Your task to perform on an android device: turn off improve location accuracy Image 0: 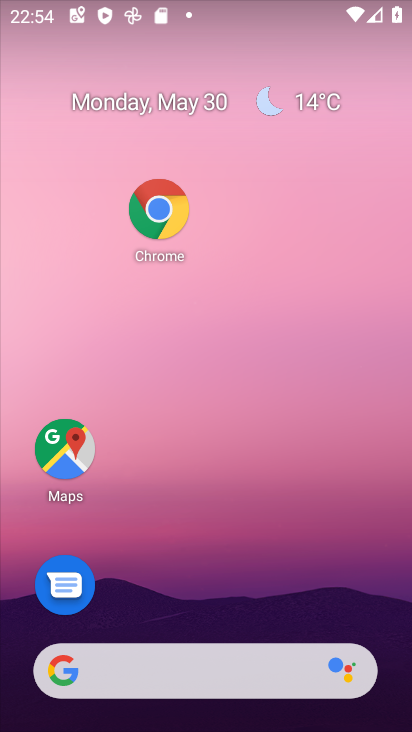
Step 0: drag from (214, 558) to (176, 0)
Your task to perform on an android device: turn off improve location accuracy Image 1: 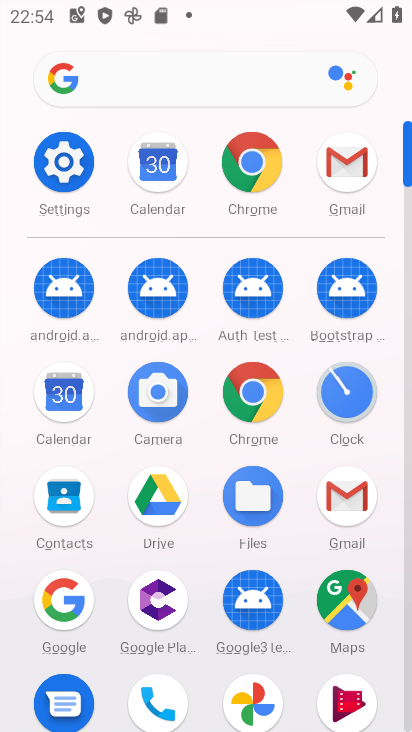
Step 1: click (72, 170)
Your task to perform on an android device: turn off improve location accuracy Image 2: 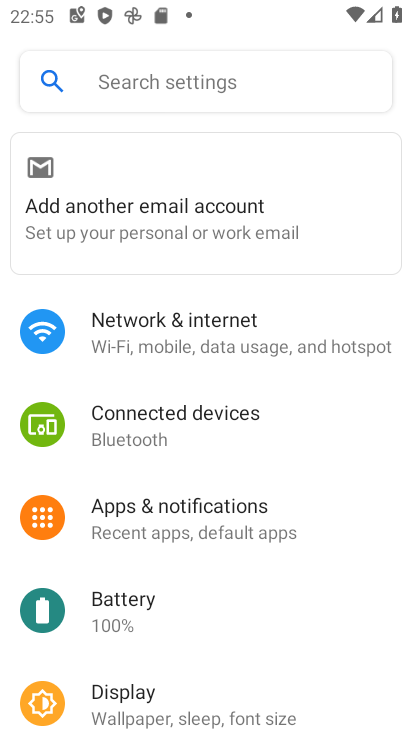
Step 2: drag from (208, 603) to (254, 193)
Your task to perform on an android device: turn off improve location accuracy Image 3: 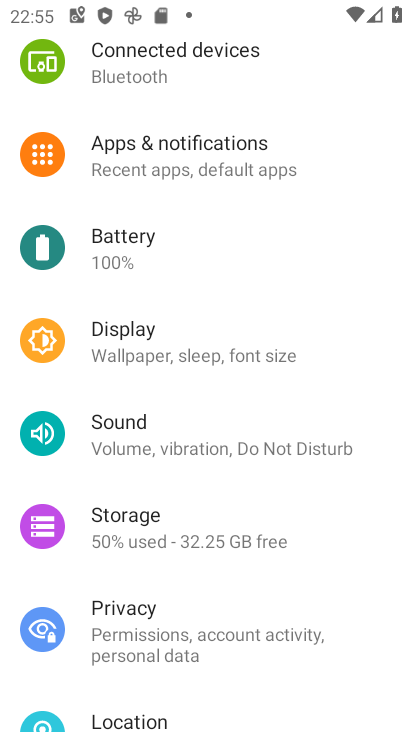
Step 3: drag from (150, 617) to (230, 292)
Your task to perform on an android device: turn off improve location accuracy Image 4: 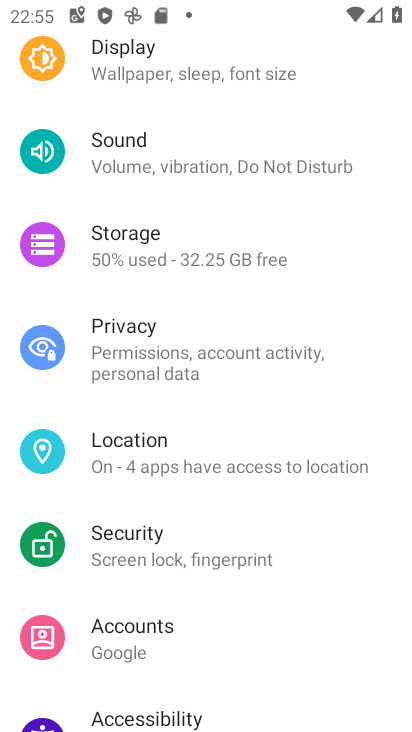
Step 4: drag from (213, 682) to (256, 197)
Your task to perform on an android device: turn off improve location accuracy Image 5: 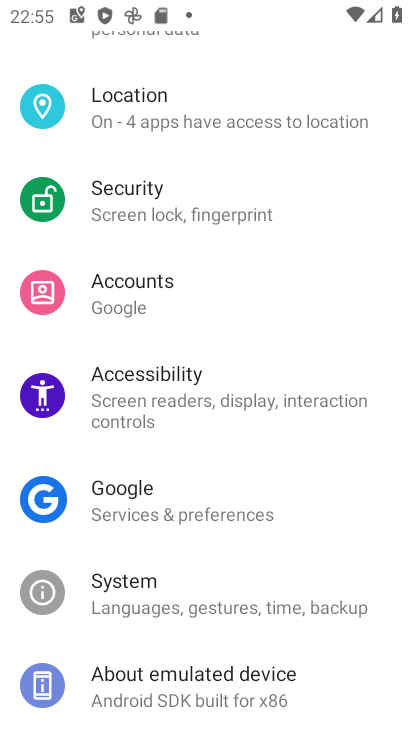
Step 5: click (225, 132)
Your task to perform on an android device: turn off improve location accuracy Image 6: 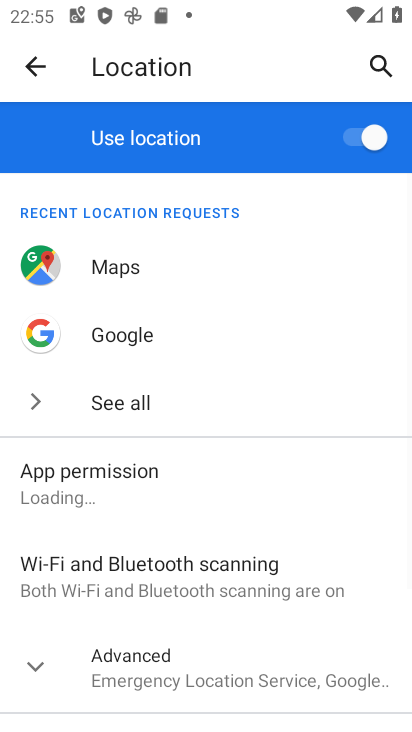
Step 6: click (149, 674)
Your task to perform on an android device: turn off improve location accuracy Image 7: 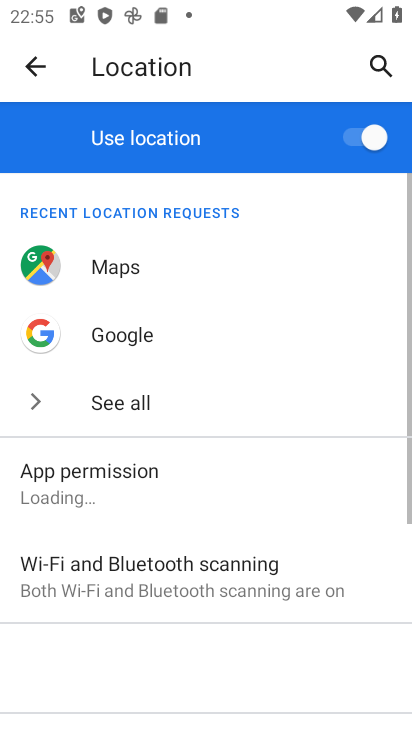
Step 7: drag from (176, 606) to (264, 49)
Your task to perform on an android device: turn off improve location accuracy Image 8: 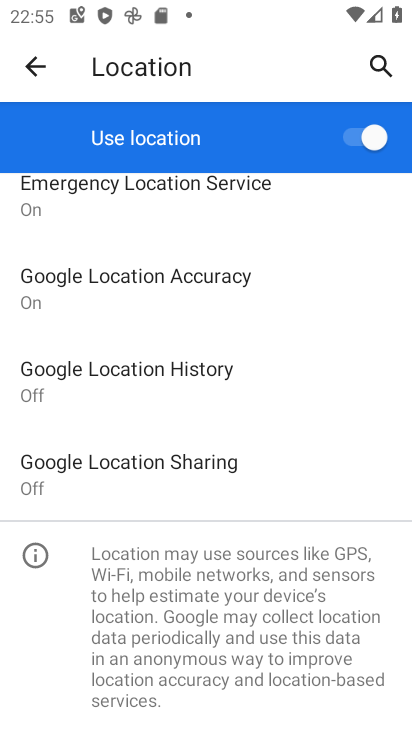
Step 8: click (173, 285)
Your task to perform on an android device: turn off improve location accuracy Image 9: 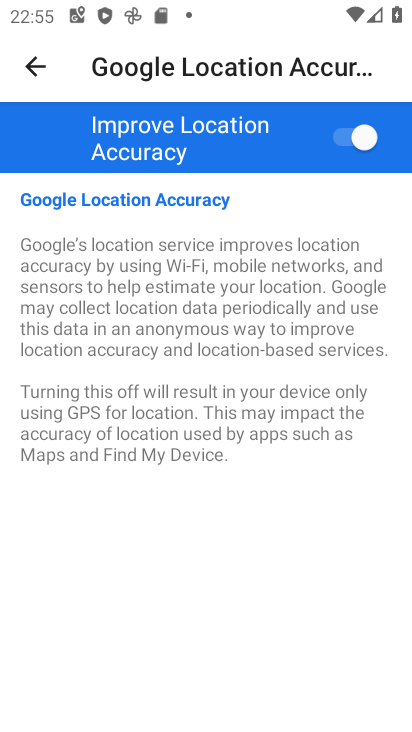
Step 9: click (364, 136)
Your task to perform on an android device: turn off improve location accuracy Image 10: 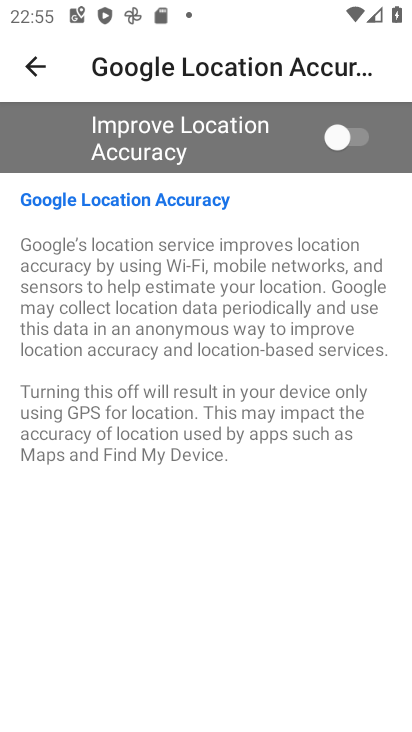
Step 10: task complete